Your task to perform on an android device: Open Reddit.com Image 0: 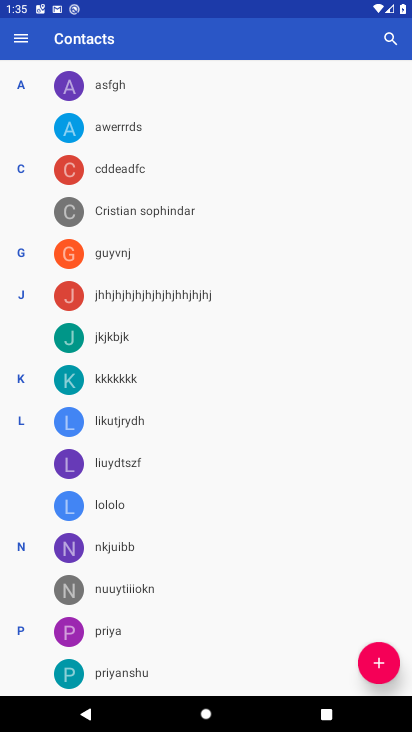
Step 0: press home button
Your task to perform on an android device: Open Reddit.com Image 1: 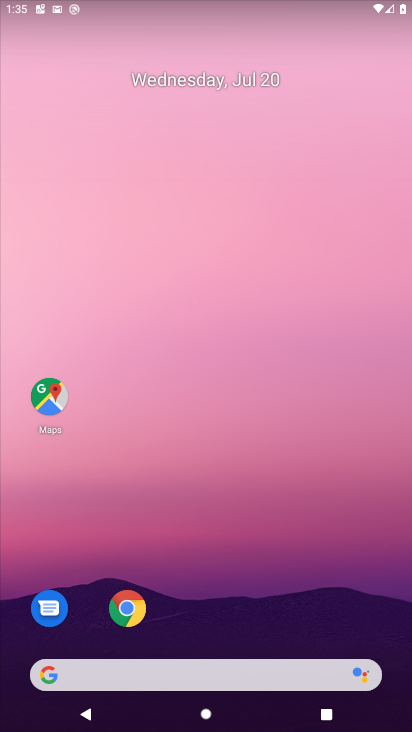
Step 1: drag from (181, 648) to (173, 180)
Your task to perform on an android device: Open Reddit.com Image 2: 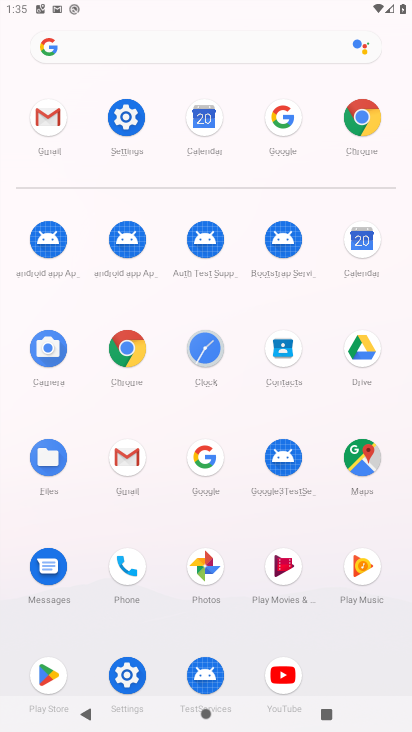
Step 2: click (205, 458)
Your task to perform on an android device: Open Reddit.com Image 3: 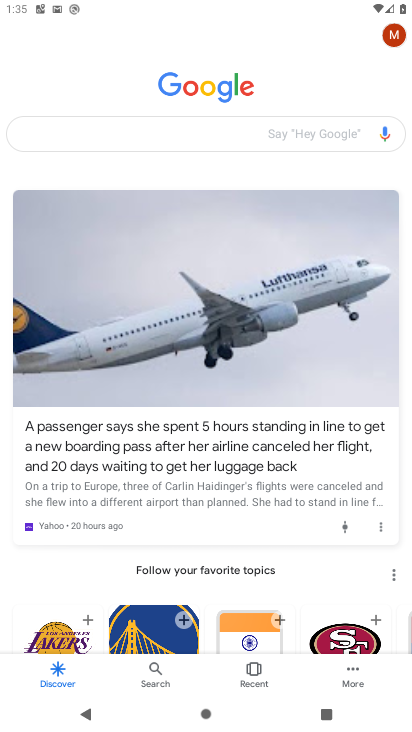
Step 3: click (85, 136)
Your task to perform on an android device: Open Reddit.com Image 4: 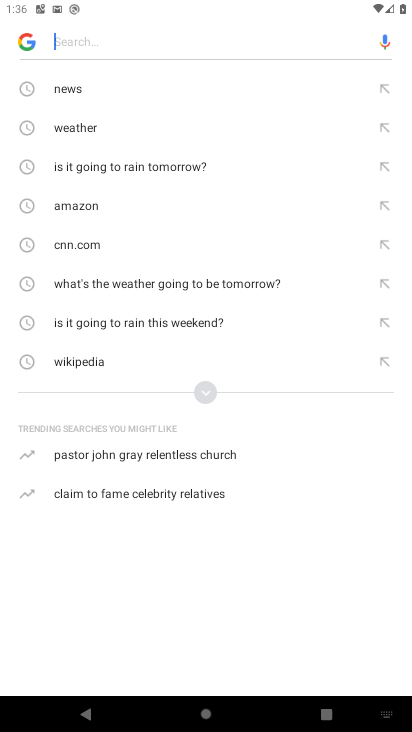
Step 4: click (205, 389)
Your task to perform on an android device: Open Reddit.com Image 5: 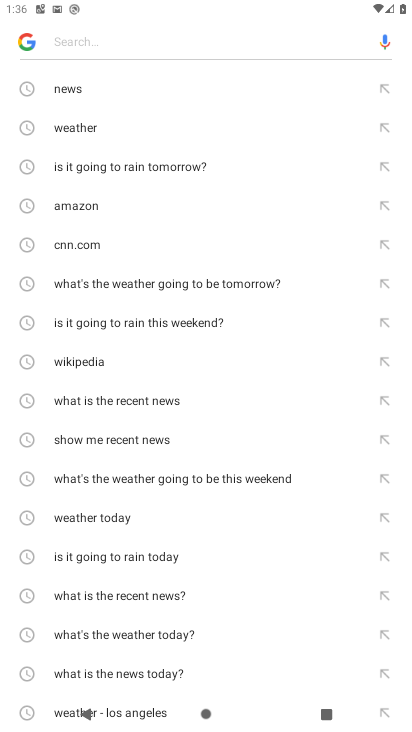
Step 5: drag from (120, 578) to (119, 198)
Your task to perform on an android device: Open Reddit.com Image 6: 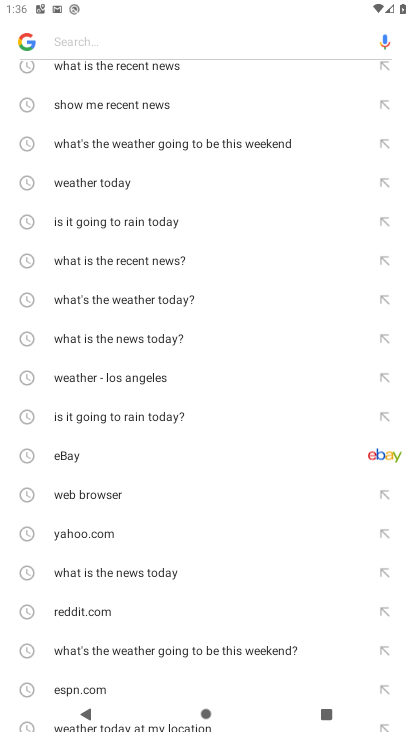
Step 6: drag from (91, 626) to (97, 308)
Your task to perform on an android device: Open Reddit.com Image 7: 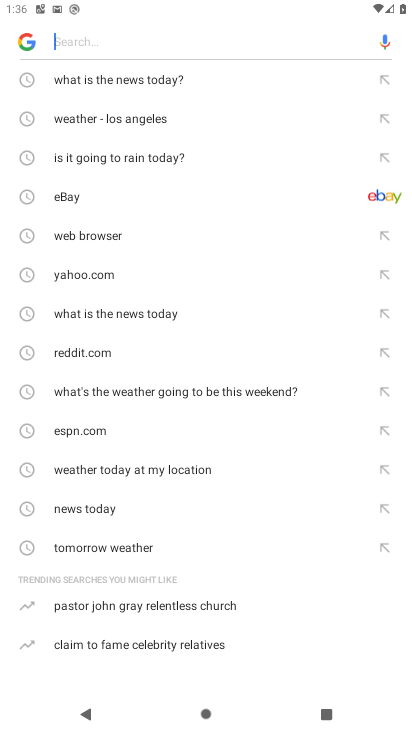
Step 7: click (52, 359)
Your task to perform on an android device: Open Reddit.com Image 8: 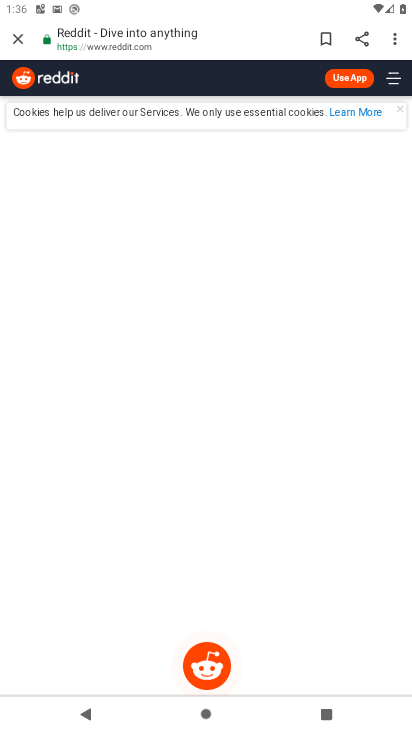
Step 8: task complete